Your task to perform on an android device: Open battery settings Image 0: 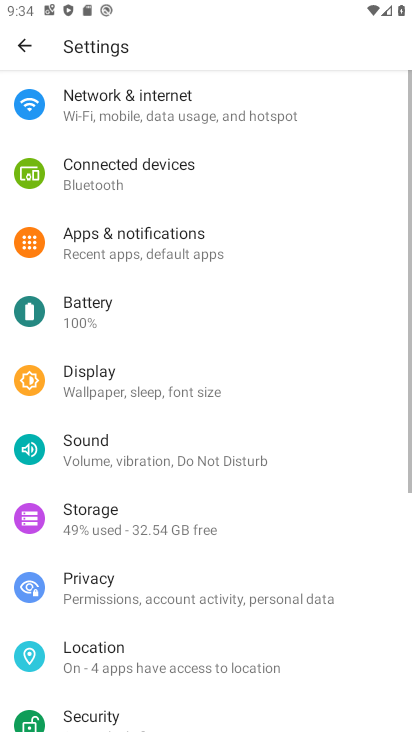
Step 0: press home button
Your task to perform on an android device: Open battery settings Image 1: 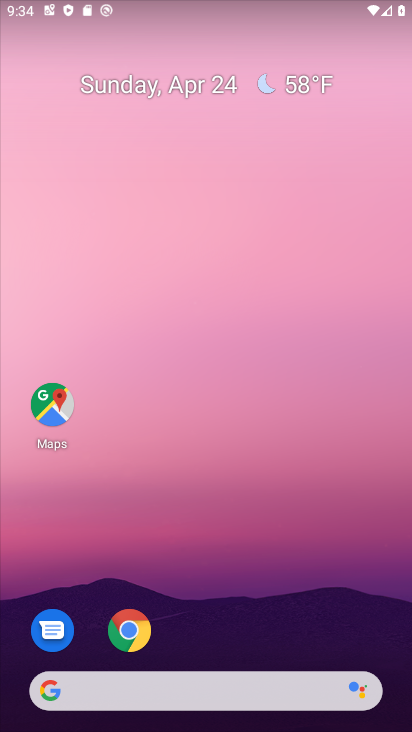
Step 1: drag from (230, 658) to (297, 34)
Your task to perform on an android device: Open battery settings Image 2: 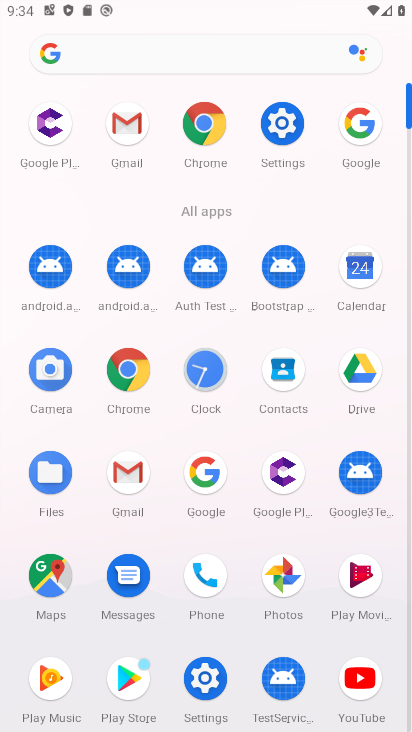
Step 2: click (280, 118)
Your task to perform on an android device: Open battery settings Image 3: 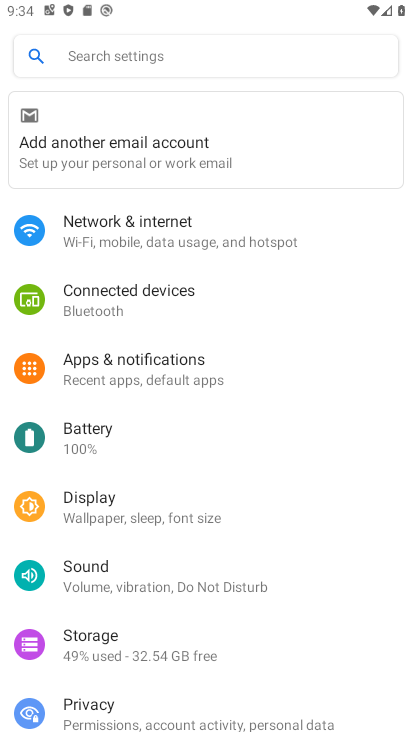
Step 3: click (179, 440)
Your task to perform on an android device: Open battery settings Image 4: 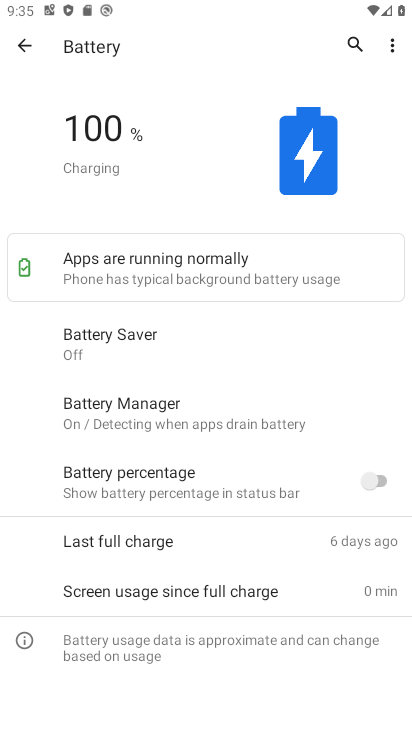
Step 4: task complete